Your task to perform on an android device: remove spam from my inbox in the gmail app Image 0: 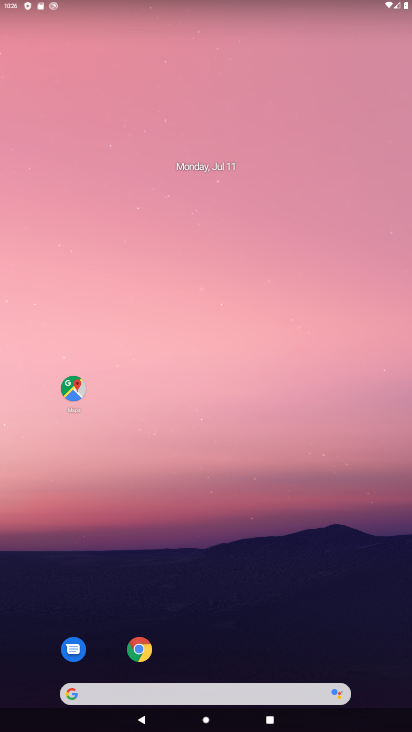
Step 0: drag from (294, 579) to (241, 106)
Your task to perform on an android device: remove spam from my inbox in the gmail app Image 1: 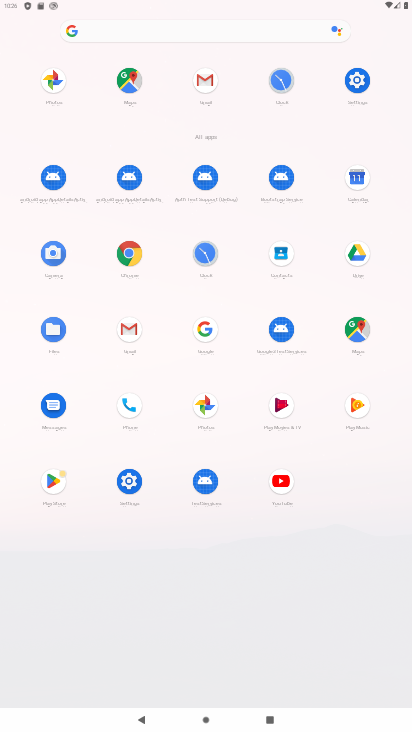
Step 1: click (205, 80)
Your task to perform on an android device: remove spam from my inbox in the gmail app Image 2: 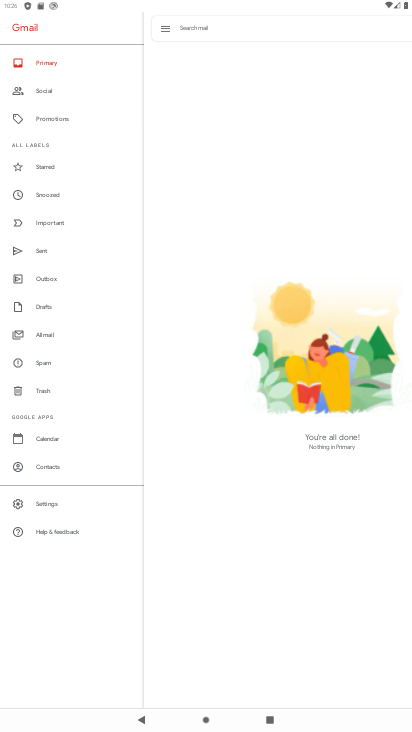
Step 2: click (43, 358)
Your task to perform on an android device: remove spam from my inbox in the gmail app Image 3: 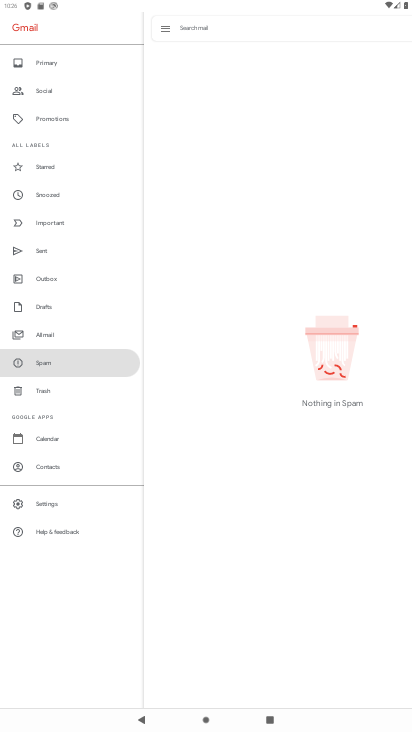
Step 3: click (54, 59)
Your task to perform on an android device: remove spam from my inbox in the gmail app Image 4: 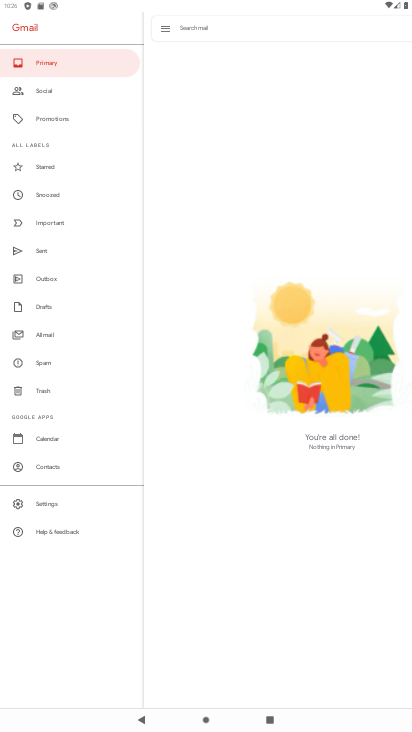
Step 4: task complete